Your task to perform on an android device: Open calendar and show me the first week of next month Image 0: 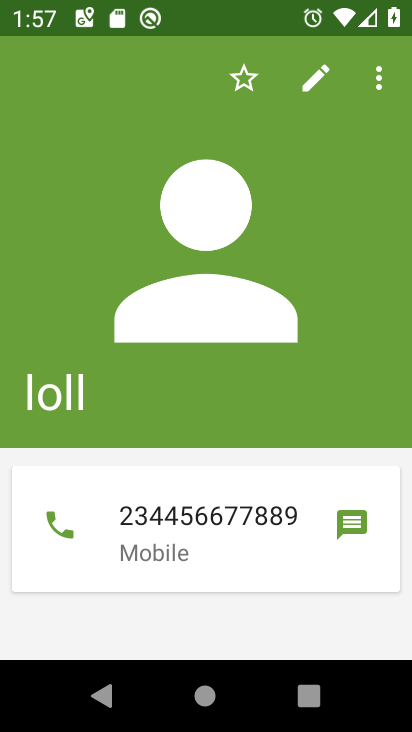
Step 0: press home button
Your task to perform on an android device: Open calendar and show me the first week of next month Image 1: 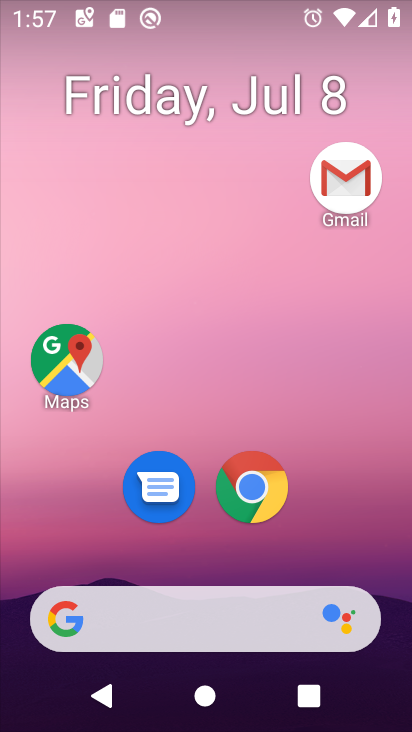
Step 1: drag from (345, 498) to (367, 139)
Your task to perform on an android device: Open calendar and show me the first week of next month Image 2: 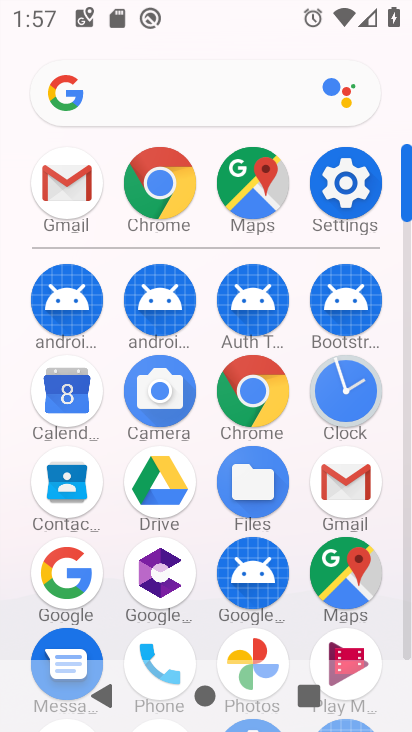
Step 2: click (81, 404)
Your task to perform on an android device: Open calendar and show me the first week of next month Image 3: 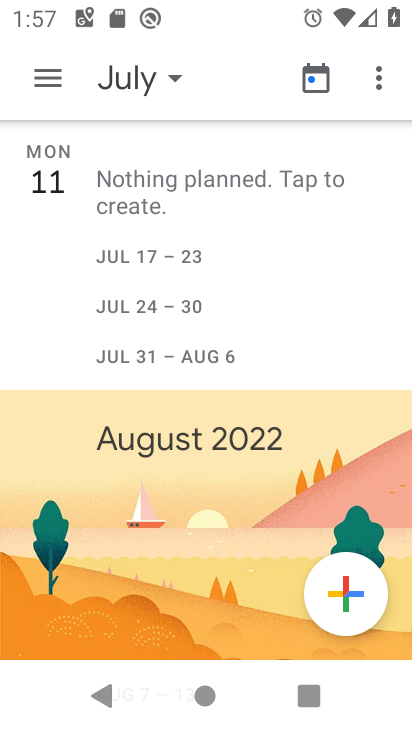
Step 3: click (173, 79)
Your task to perform on an android device: Open calendar and show me the first week of next month Image 4: 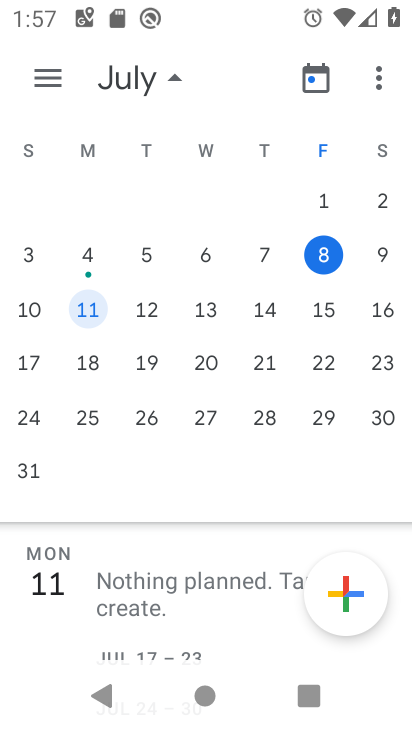
Step 4: task complete